Your task to perform on an android device: Open Yahoo.com Image 0: 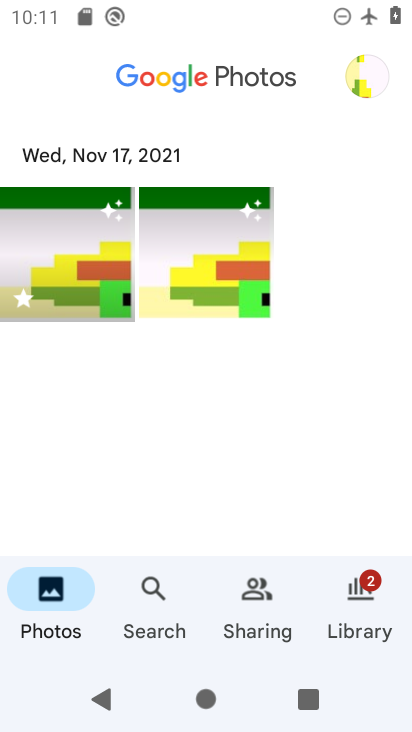
Step 0: press home button
Your task to perform on an android device: Open Yahoo.com Image 1: 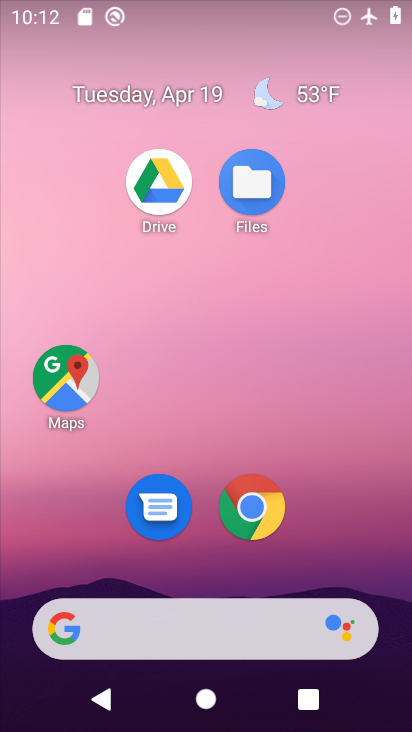
Step 1: click (283, 621)
Your task to perform on an android device: Open Yahoo.com Image 2: 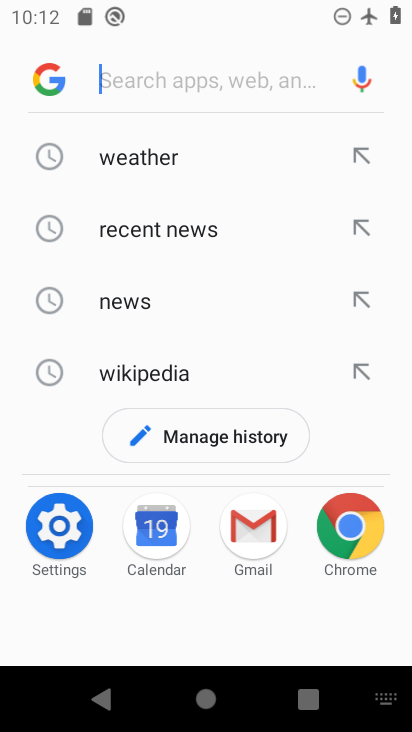
Step 2: type "yahoo.com"
Your task to perform on an android device: Open Yahoo.com Image 3: 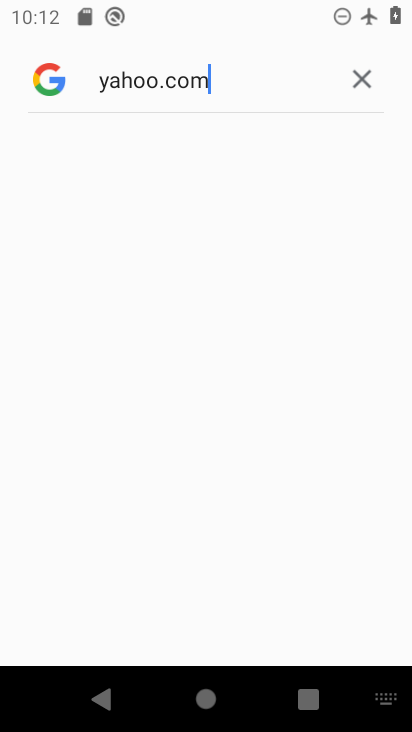
Step 3: task complete